Your task to perform on an android device: Open Google Chrome Image 0: 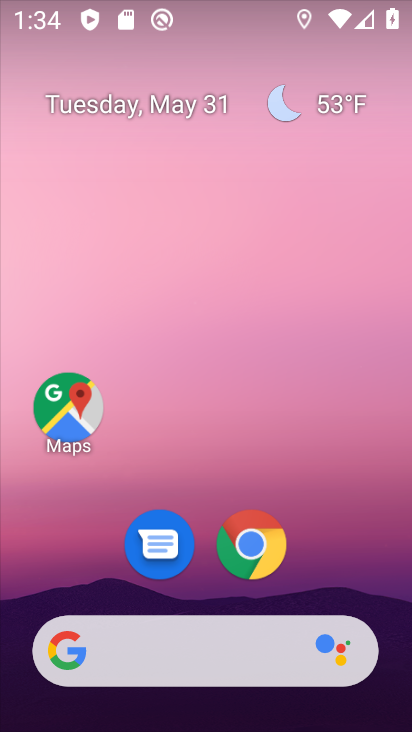
Step 0: click (272, 539)
Your task to perform on an android device: Open Google Chrome Image 1: 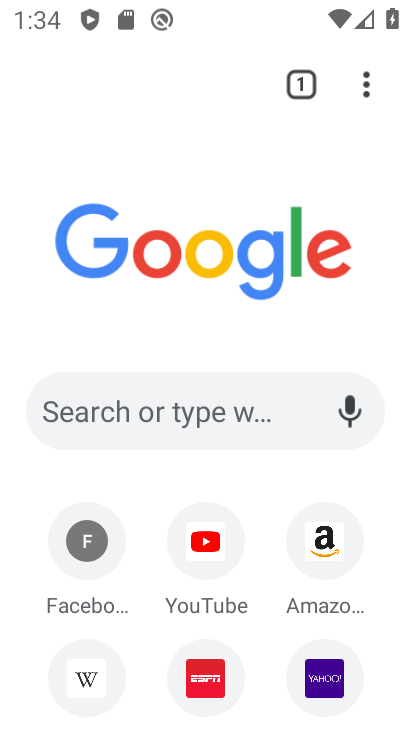
Step 1: task complete